Your task to perform on an android device: Open ESPN.com Image 0: 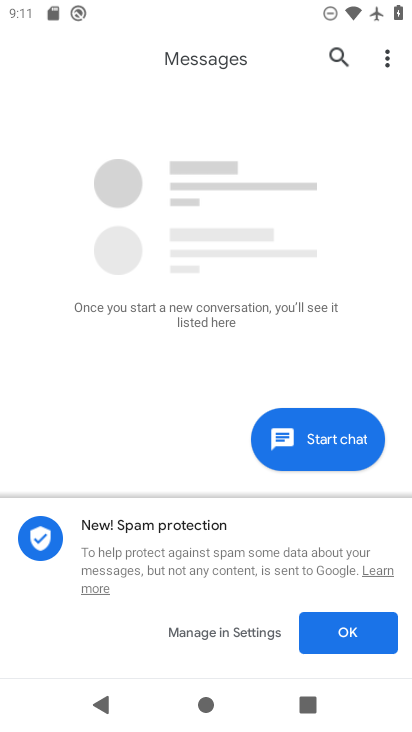
Step 0: press home button
Your task to perform on an android device: Open ESPN.com Image 1: 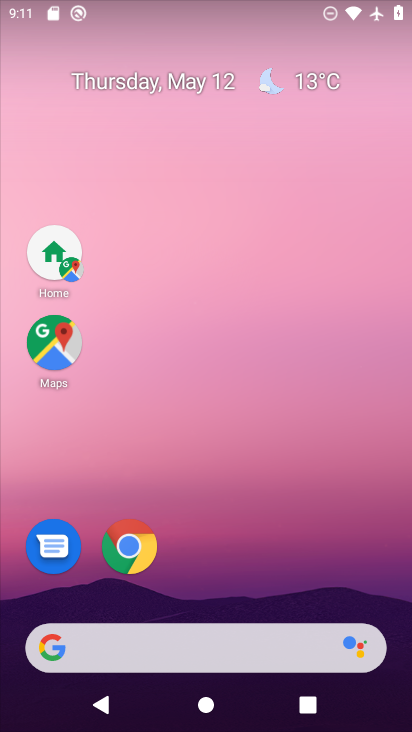
Step 1: drag from (143, 660) to (307, 103)
Your task to perform on an android device: Open ESPN.com Image 2: 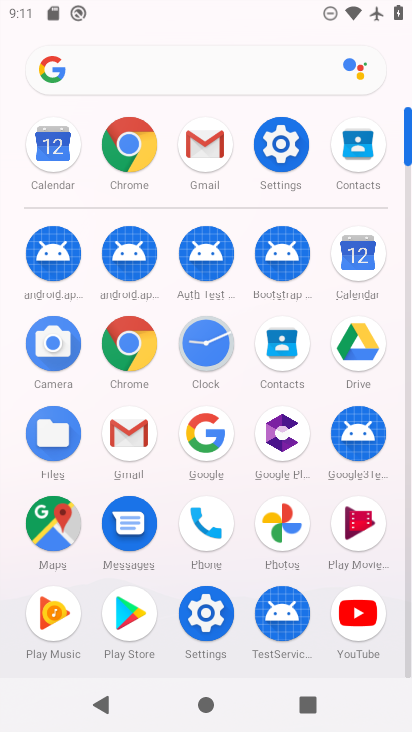
Step 2: click (118, 156)
Your task to perform on an android device: Open ESPN.com Image 3: 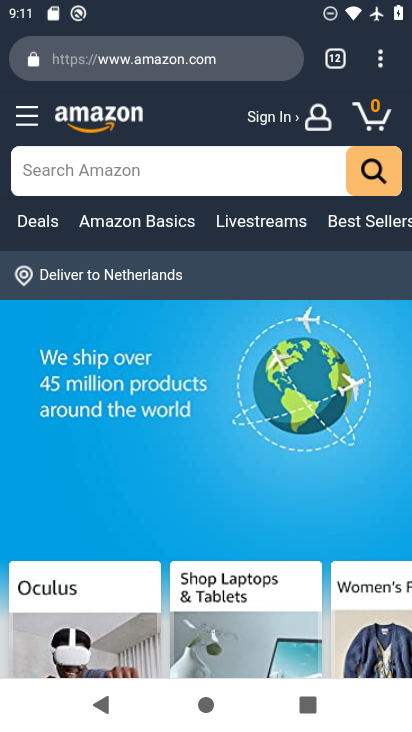
Step 3: drag from (387, 62) to (300, 113)
Your task to perform on an android device: Open ESPN.com Image 4: 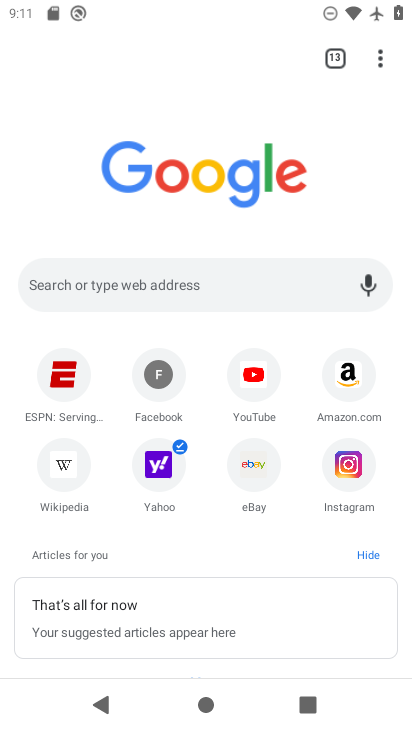
Step 4: click (68, 380)
Your task to perform on an android device: Open ESPN.com Image 5: 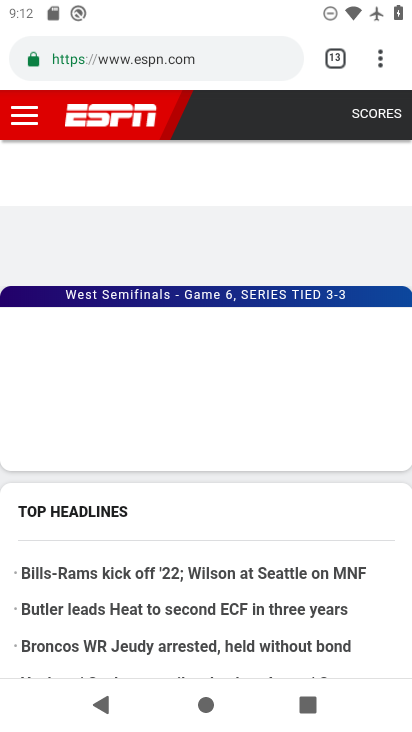
Step 5: task complete